Your task to perform on an android device: read, delete, or share a saved page in the chrome app Image 0: 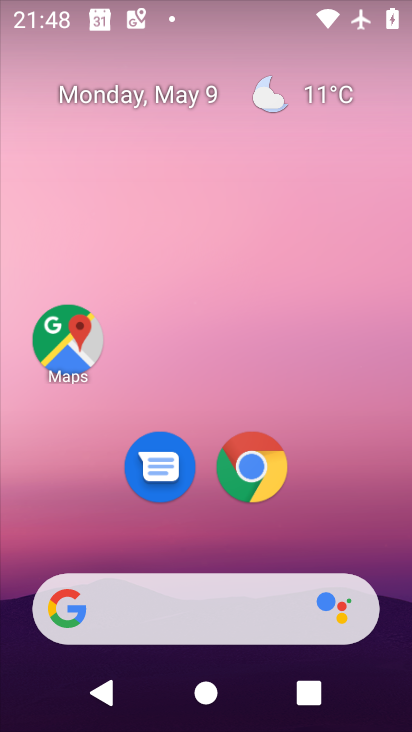
Step 0: drag from (360, 557) to (353, 257)
Your task to perform on an android device: read, delete, or share a saved page in the chrome app Image 1: 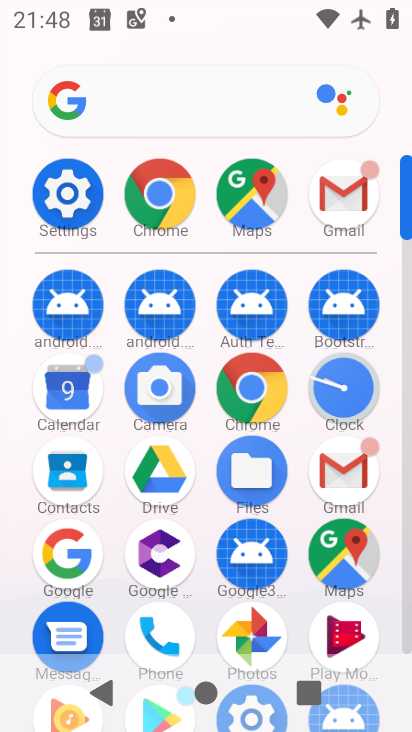
Step 1: click (245, 377)
Your task to perform on an android device: read, delete, or share a saved page in the chrome app Image 2: 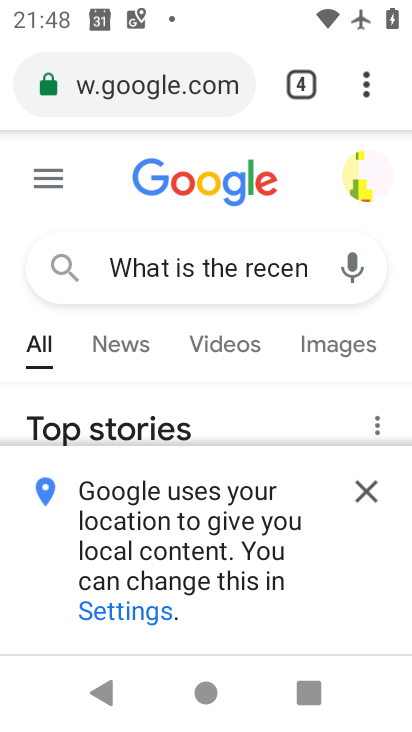
Step 2: click (352, 85)
Your task to perform on an android device: read, delete, or share a saved page in the chrome app Image 3: 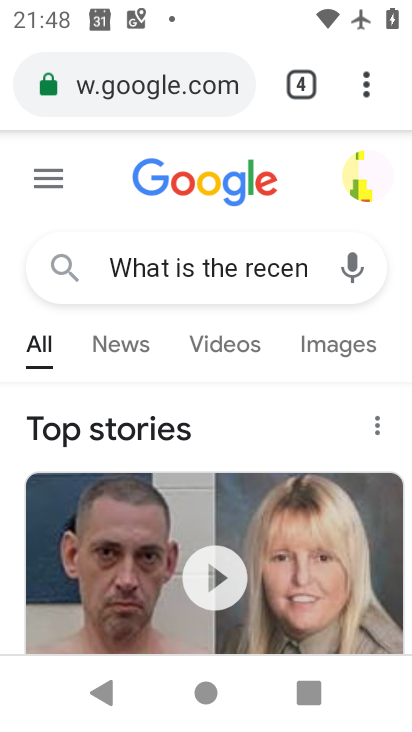
Step 3: click (363, 71)
Your task to perform on an android device: read, delete, or share a saved page in the chrome app Image 4: 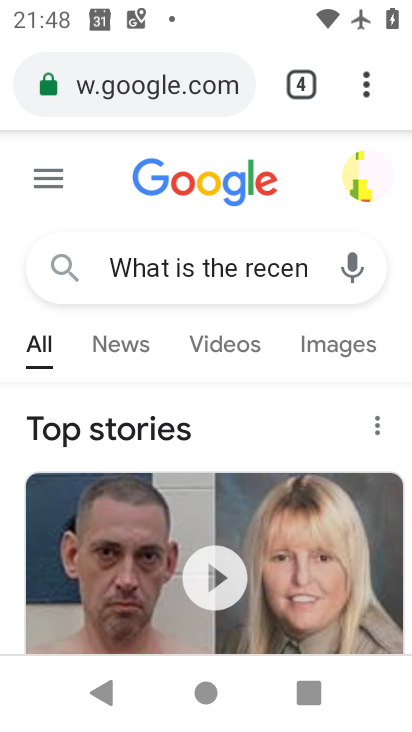
Step 4: click (350, 88)
Your task to perform on an android device: read, delete, or share a saved page in the chrome app Image 5: 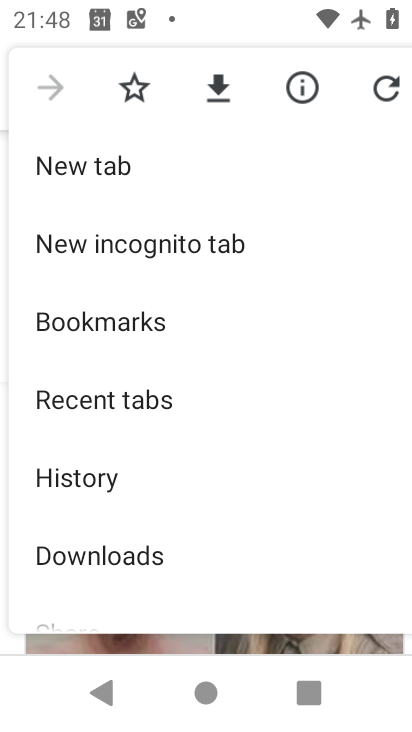
Step 5: click (175, 545)
Your task to perform on an android device: read, delete, or share a saved page in the chrome app Image 6: 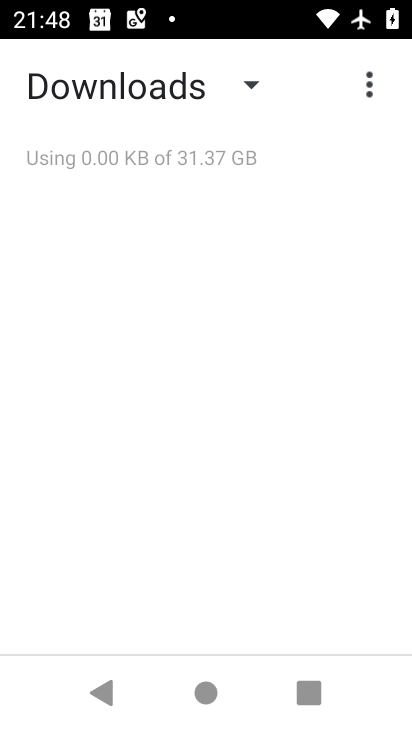
Step 6: click (242, 81)
Your task to perform on an android device: read, delete, or share a saved page in the chrome app Image 7: 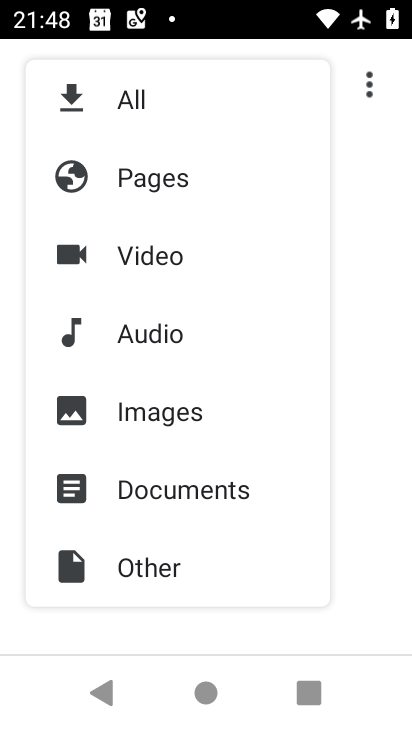
Step 7: click (138, 194)
Your task to perform on an android device: read, delete, or share a saved page in the chrome app Image 8: 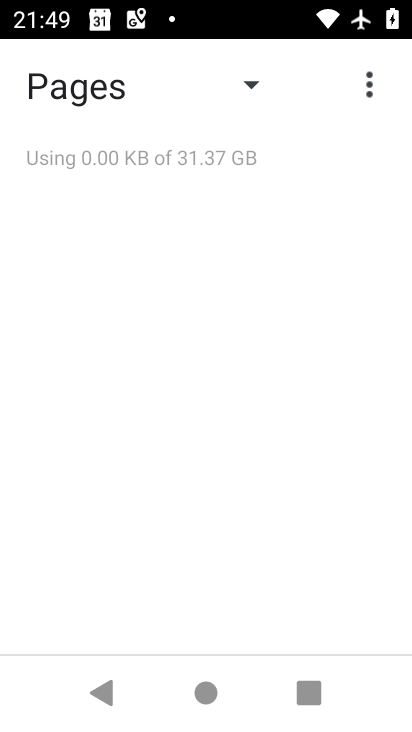
Step 8: task complete